Your task to perform on an android device: turn off location history Image 0: 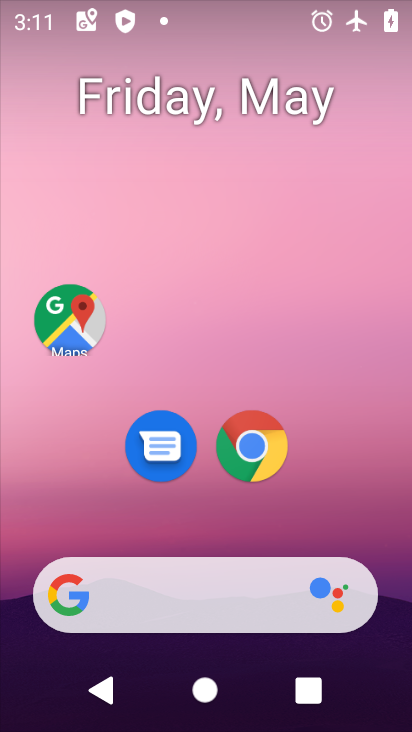
Step 0: click (70, 298)
Your task to perform on an android device: turn off location history Image 1: 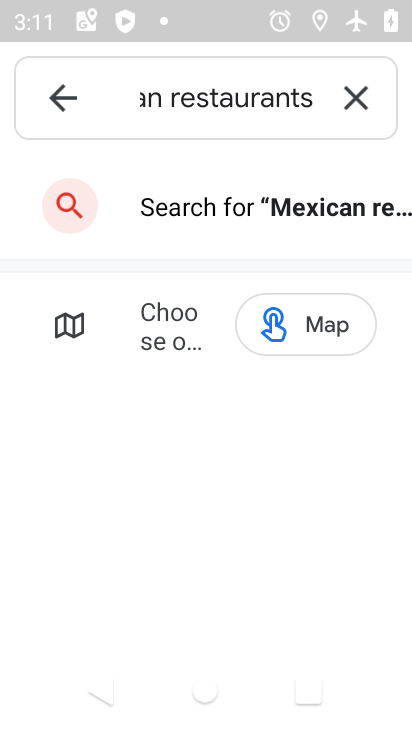
Step 1: click (67, 91)
Your task to perform on an android device: turn off location history Image 2: 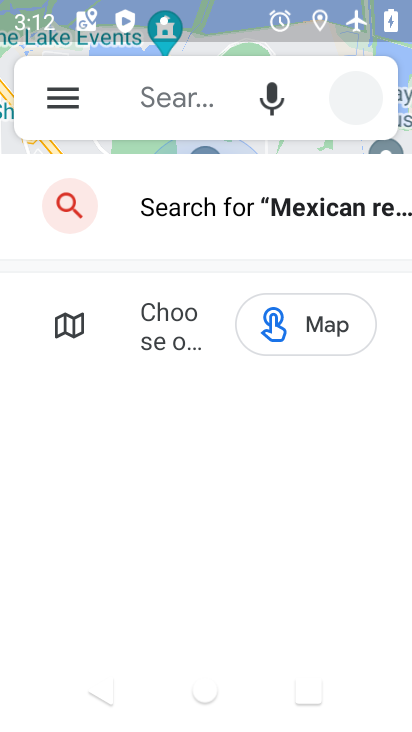
Step 2: click (67, 91)
Your task to perform on an android device: turn off location history Image 3: 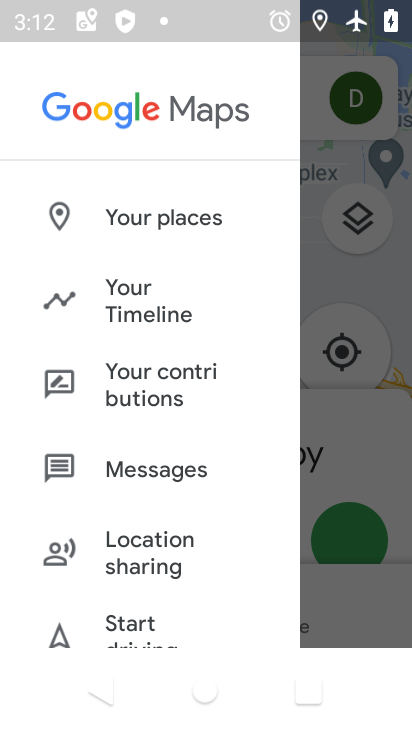
Step 3: click (157, 317)
Your task to perform on an android device: turn off location history Image 4: 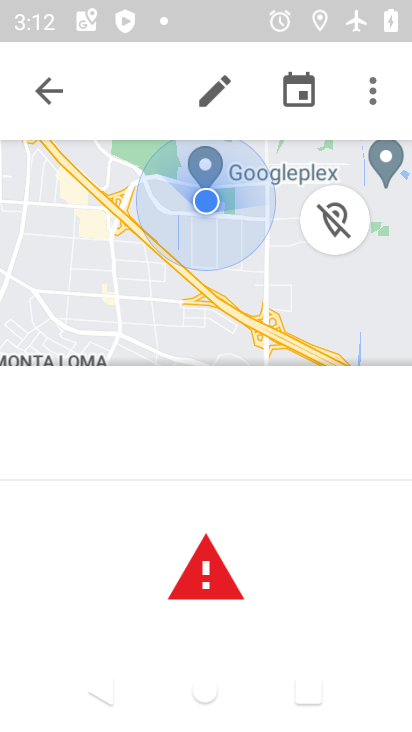
Step 4: click (384, 87)
Your task to perform on an android device: turn off location history Image 5: 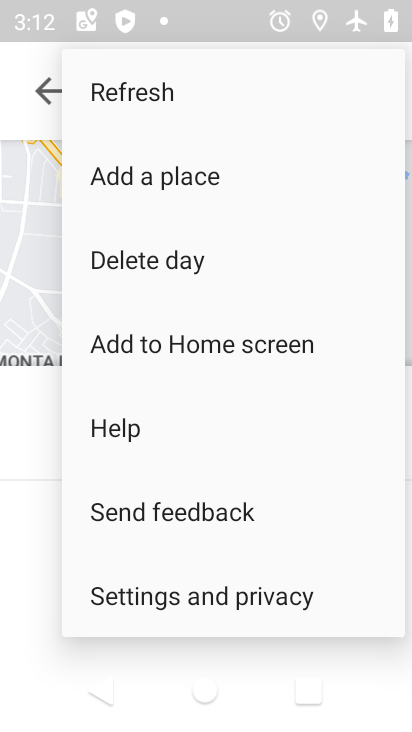
Step 5: click (247, 601)
Your task to perform on an android device: turn off location history Image 6: 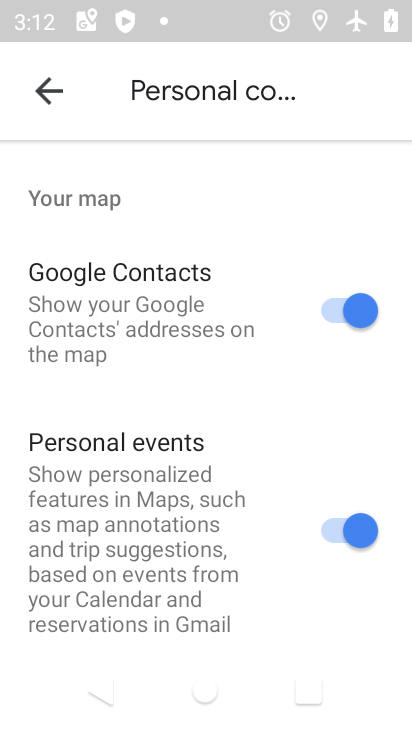
Step 6: drag from (268, 636) to (206, 221)
Your task to perform on an android device: turn off location history Image 7: 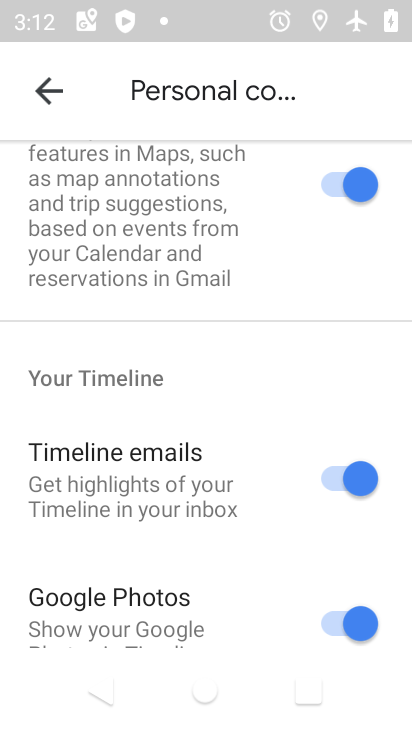
Step 7: drag from (253, 559) to (206, 161)
Your task to perform on an android device: turn off location history Image 8: 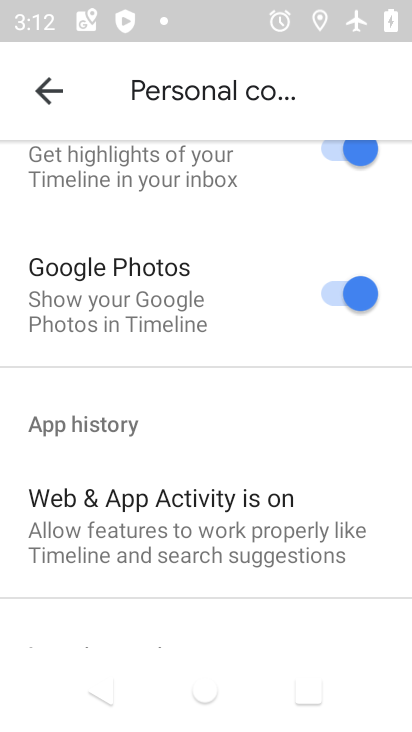
Step 8: drag from (288, 538) to (227, 155)
Your task to perform on an android device: turn off location history Image 9: 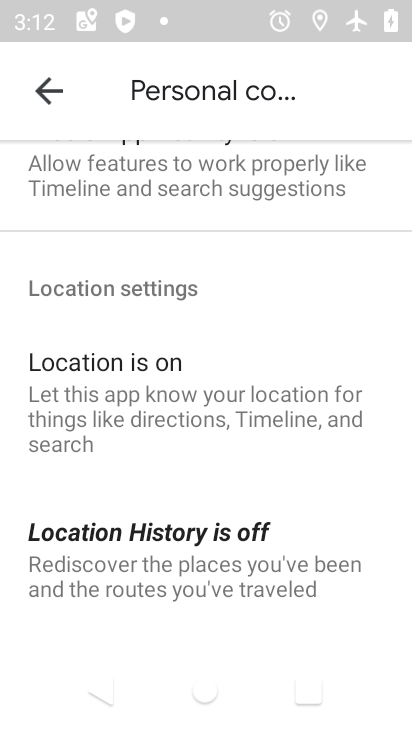
Step 9: drag from (234, 573) to (212, 256)
Your task to perform on an android device: turn off location history Image 10: 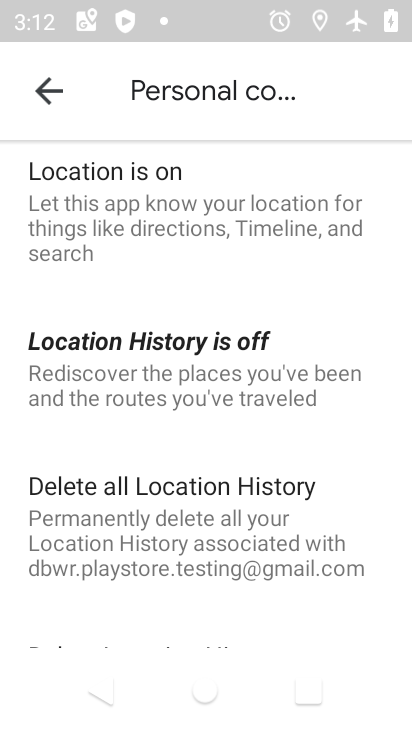
Step 10: click (226, 345)
Your task to perform on an android device: turn off location history Image 11: 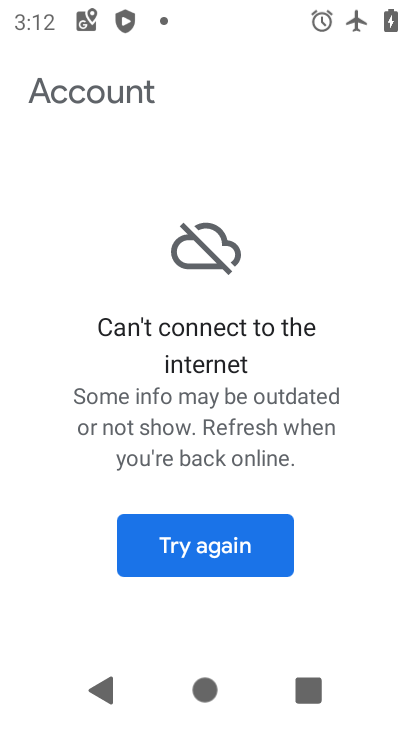
Step 11: task complete